Your task to perform on an android device: Turn off the flashlight Image 0: 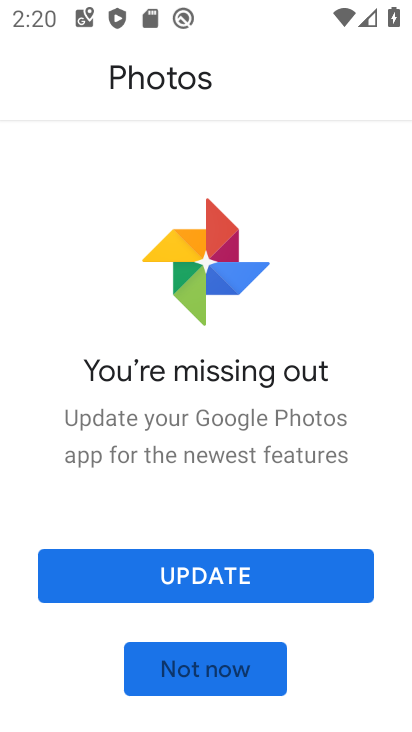
Step 0: drag from (377, 10) to (253, 452)
Your task to perform on an android device: Turn off the flashlight Image 1: 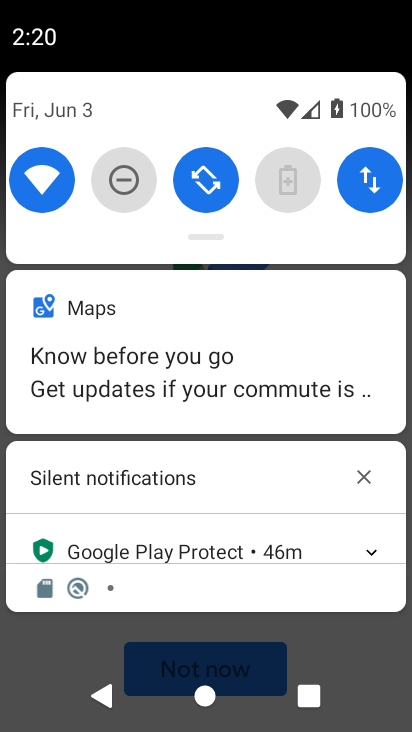
Step 1: drag from (252, 228) to (202, 534)
Your task to perform on an android device: Turn off the flashlight Image 2: 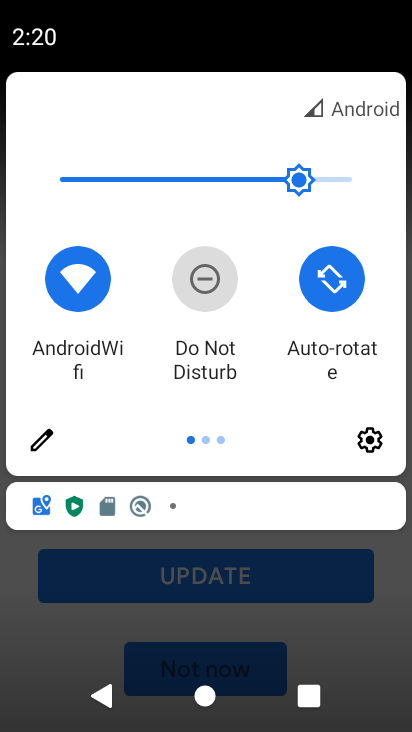
Step 2: click (48, 440)
Your task to perform on an android device: Turn off the flashlight Image 3: 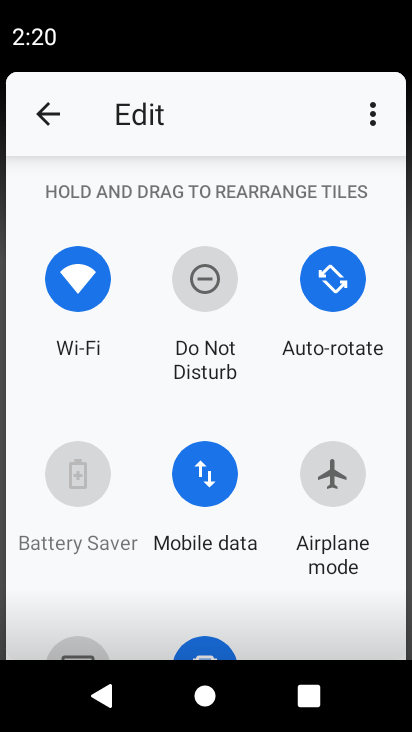
Step 3: task complete